Your task to perform on an android device: set an alarm Image 0: 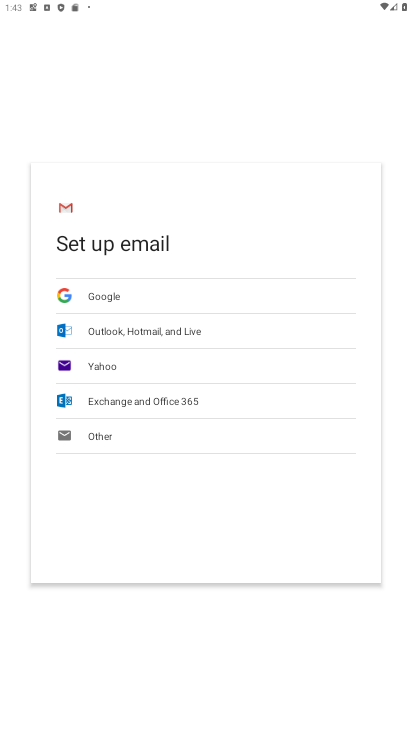
Step 0: press home button
Your task to perform on an android device: set an alarm Image 1: 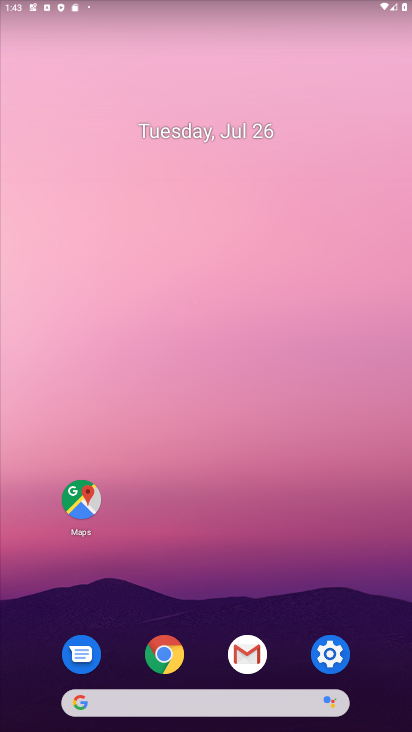
Step 1: drag from (220, 705) to (331, 170)
Your task to perform on an android device: set an alarm Image 2: 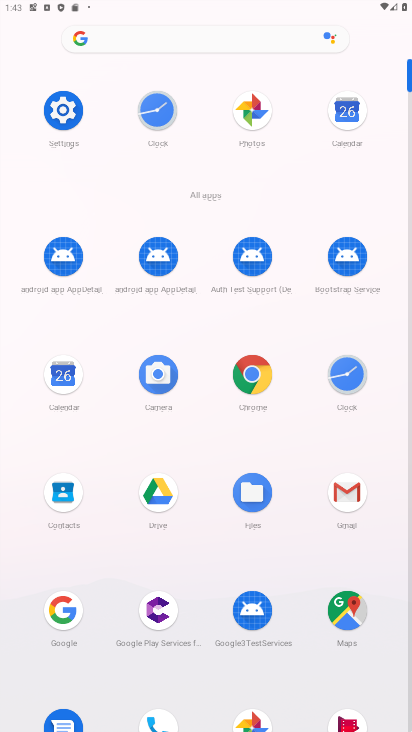
Step 2: click (342, 381)
Your task to perform on an android device: set an alarm Image 3: 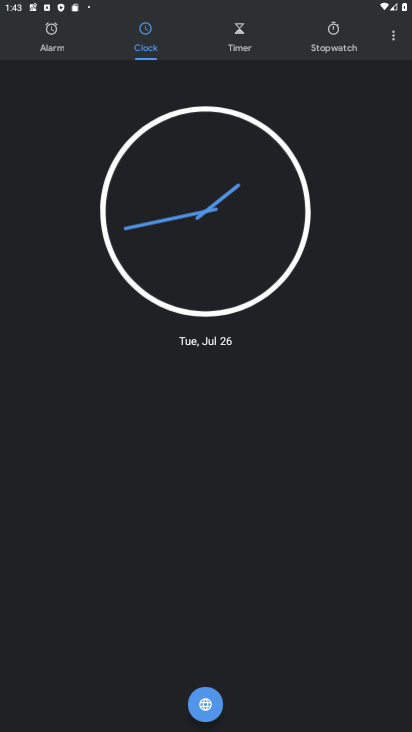
Step 3: click (42, 57)
Your task to perform on an android device: set an alarm Image 4: 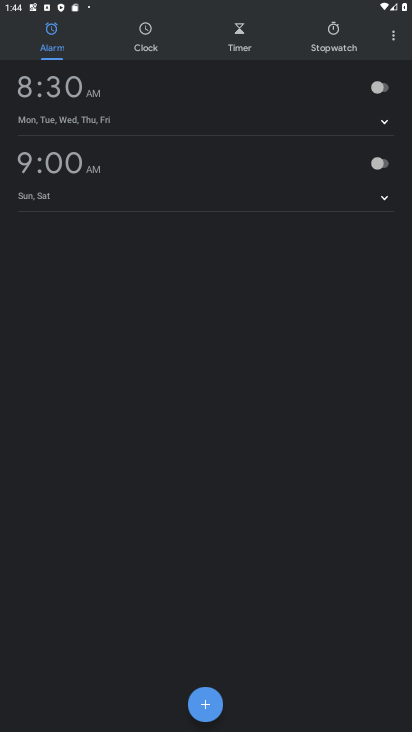
Step 4: click (374, 88)
Your task to perform on an android device: set an alarm Image 5: 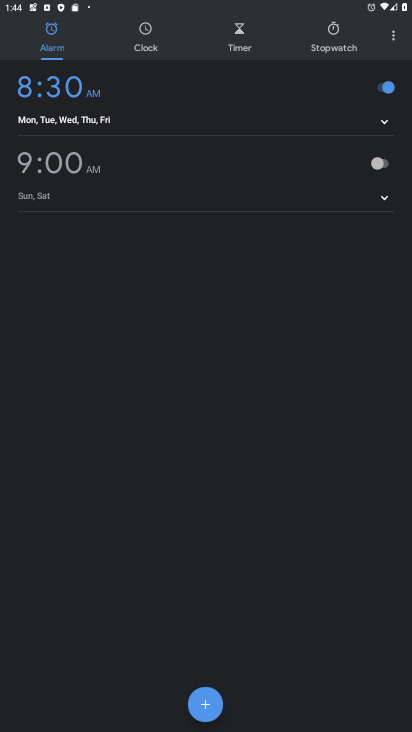
Step 5: task complete